Your task to perform on an android device: Open Youtube and go to "Your channel" Image 0: 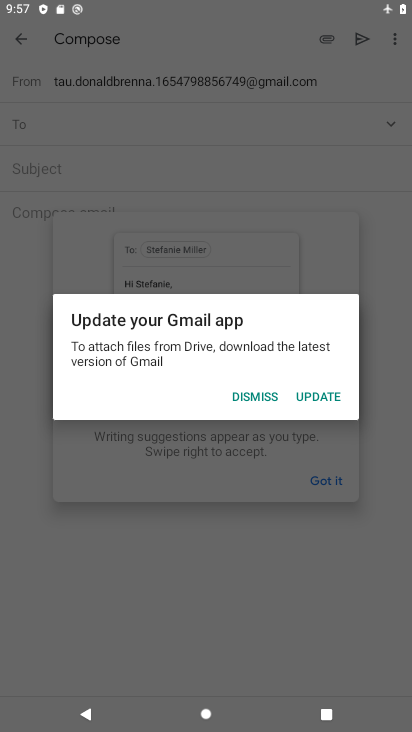
Step 0: press home button
Your task to perform on an android device: Open Youtube and go to "Your channel" Image 1: 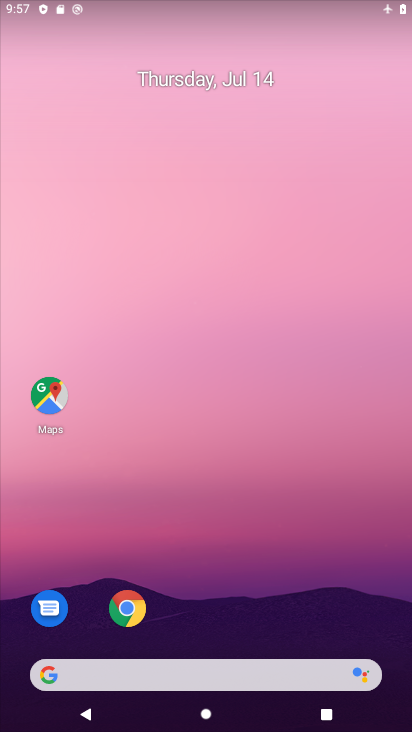
Step 1: drag from (267, 629) to (250, 65)
Your task to perform on an android device: Open Youtube and go to "Your channel" Image 2: 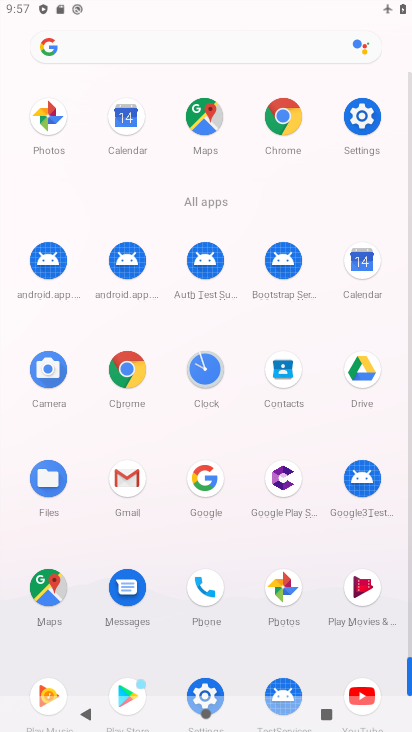
Step 2: click (362, 682)
Your task to perform on an android device: Open Youtube and go to "Your channel" Image 3: 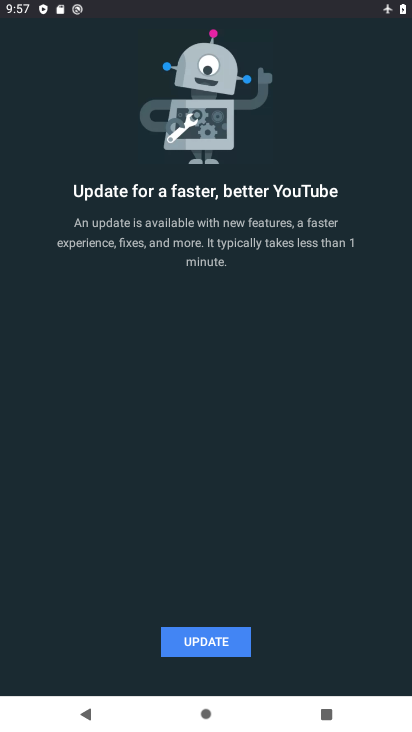
Step 3: click (215, 647)
Your task to perform on an android device: Open Youtube and go to "Your channel" Image 4: 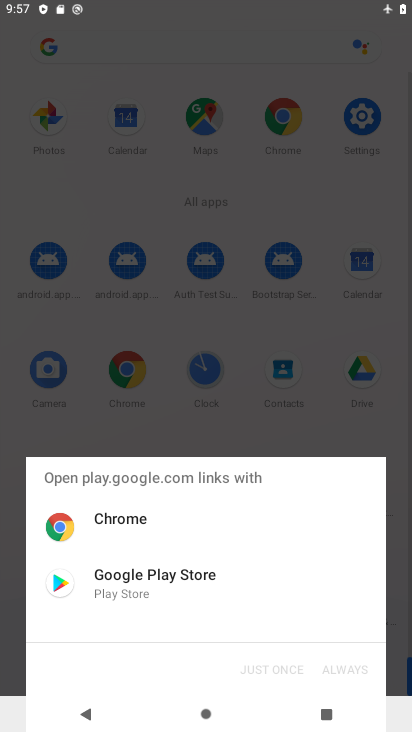
Step 4: click (128, 523)
Your task to perform on an android device: Open Youtube and go to "Your channel" Image 5: 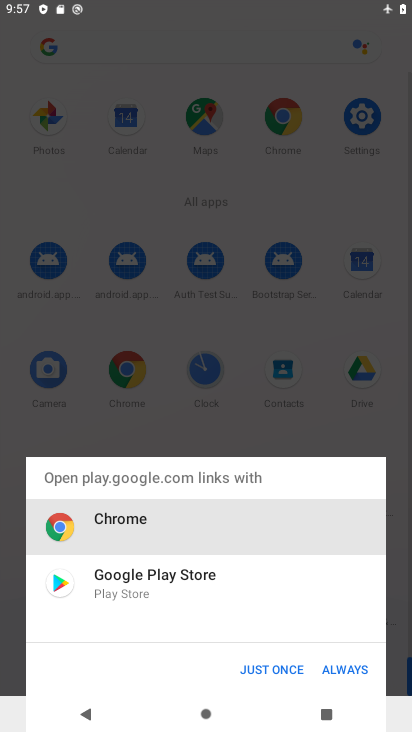
Step 5: click (80, 572)
Your task to perform on an android device: Open Youtube and go to "Your channel" Image 6: 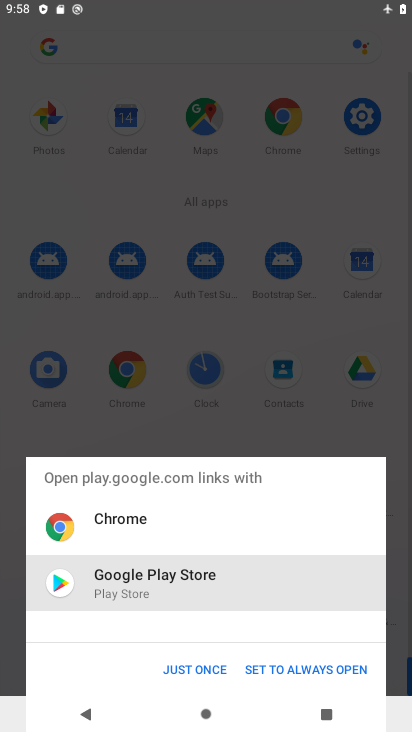
Step 6: click (209, 669)
Your task to perform on an android device: Open Youtube and go to "Your channel" Image 7: 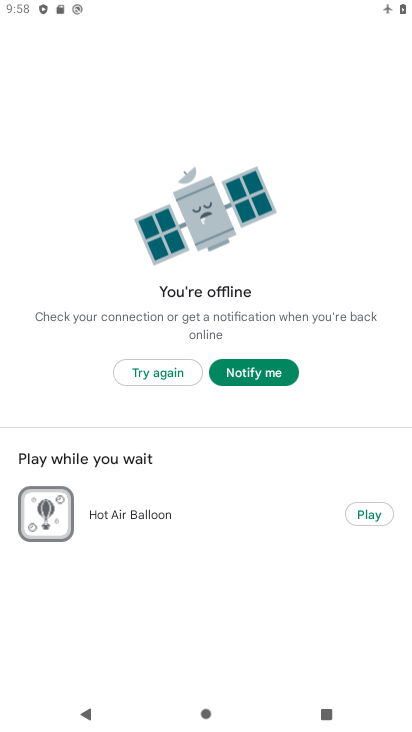
Step 7: click (156, 372)
Your task to perform on an android device: Open Youtube and go to "Your channel" Image 8: 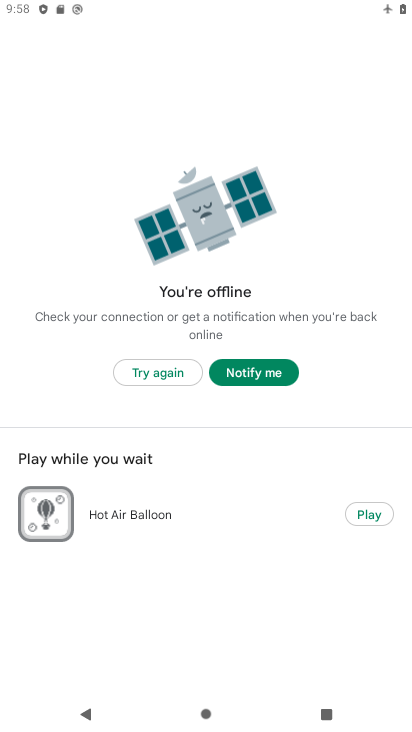
Step 8: click (156, 373)
Your task to perform on an android device: Open Youtube and go to "Your channel" Image 9: 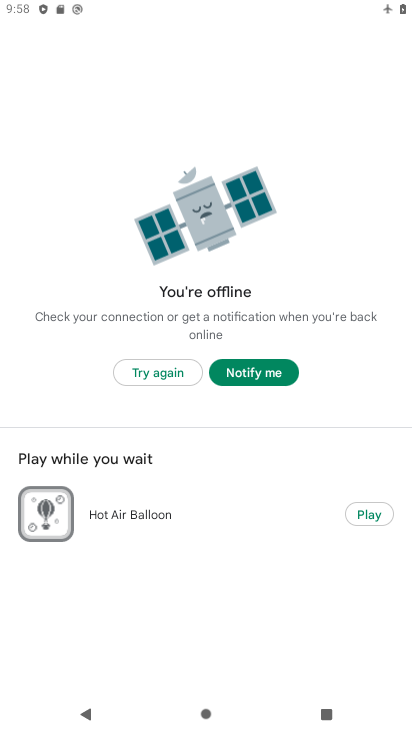
Step 9: click (157, 374)
Your task to perform on an android device: Open Youtube and go to "Your channel" Image 10: 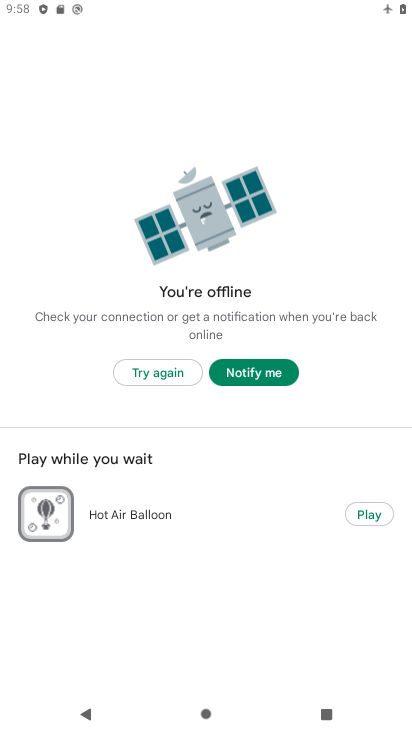
Step 10: task complete